Your task to perform on an android device: clear all cookies in the chrome app Image 0: 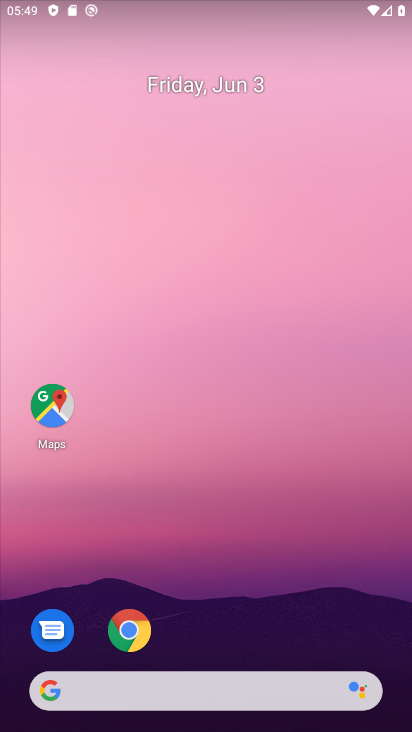
Step 0: click (138, 627)
Your task to perform on an android device: clear all cookies in the chrome app Image 1: 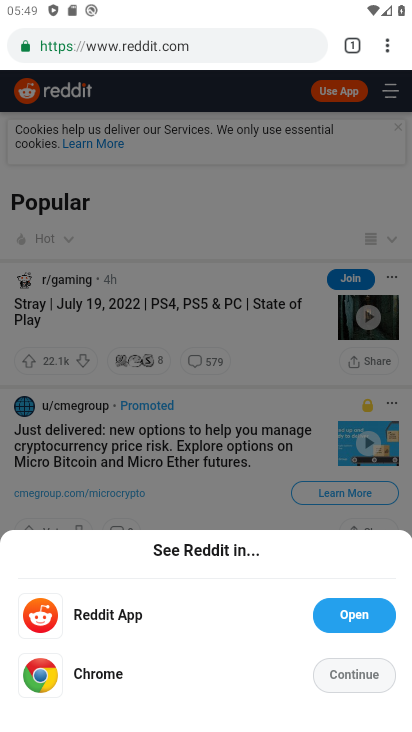
Step 1: click (371, 42)
Your task to perform on an android device: clear all cookies in the chrome app Image 2: 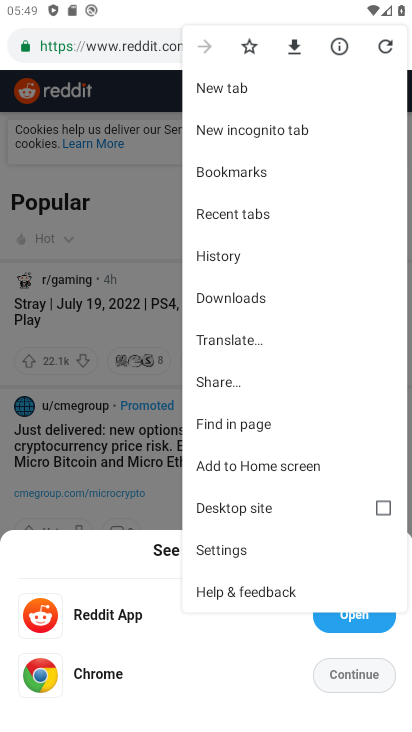
Step 2: click (245, 275)
Your task to perform on an android device: clear all cookies in the chrome app Image 3: 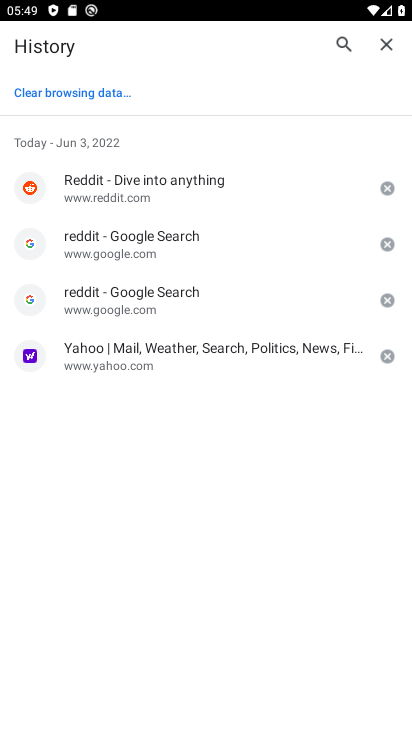
Step 3: click (124, 89)
Your task to perform on an android device: clear all cookies in the chrome app Image 4: 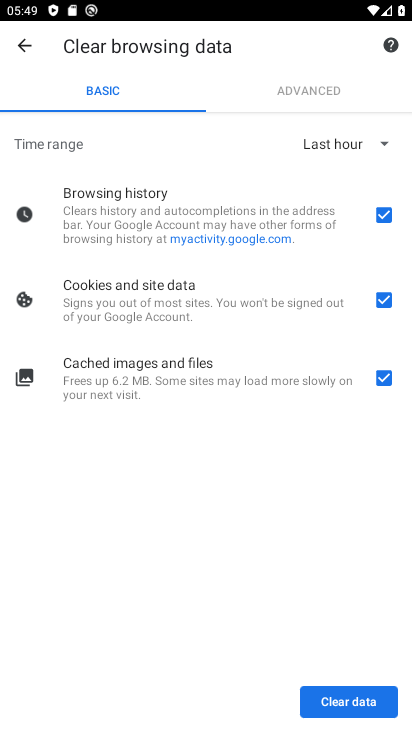
Step 4: click (386, 225)
Your task to perform on an android device: clear all cookies in the chrome app Image 5: 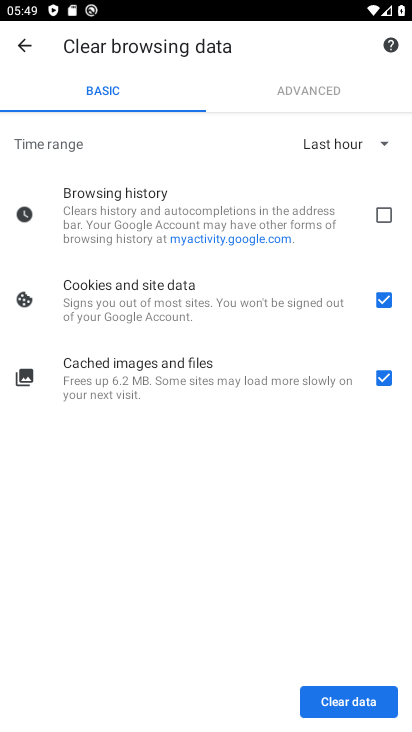
Step 5: click (389, 383)
Your task to perform on an android device: clear all cookies in the chrome app Image 6: 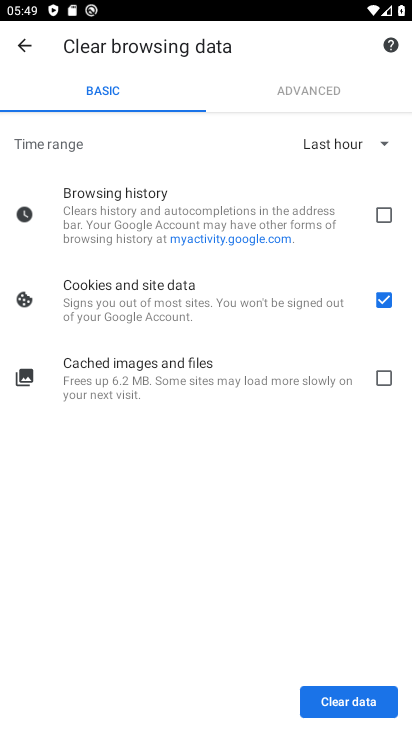
Step 6: click (367, 712)
Your task to perform on an android device: clear all cookies in the chrome app Image 7: 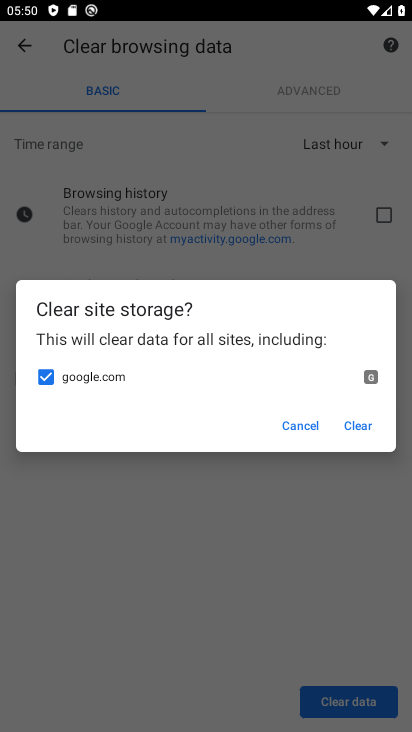
Step 7: click (379, 426)
Your task to perform on an android device: clear all cookies in the chrome app Image 8: 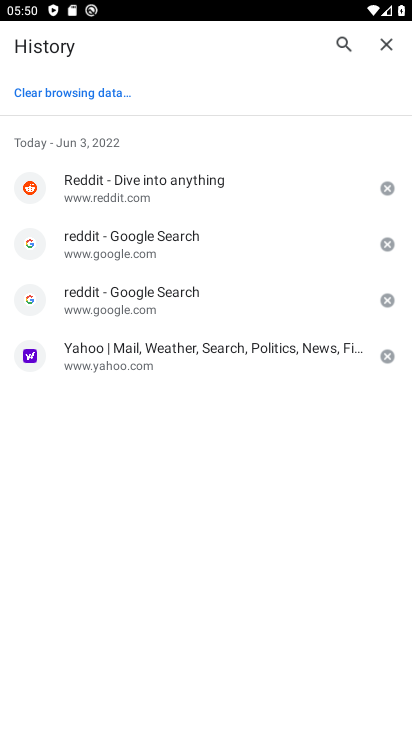
Step 8: task complete